Your task to perform on an android device: refresh tabs in the chrome app Image 0: 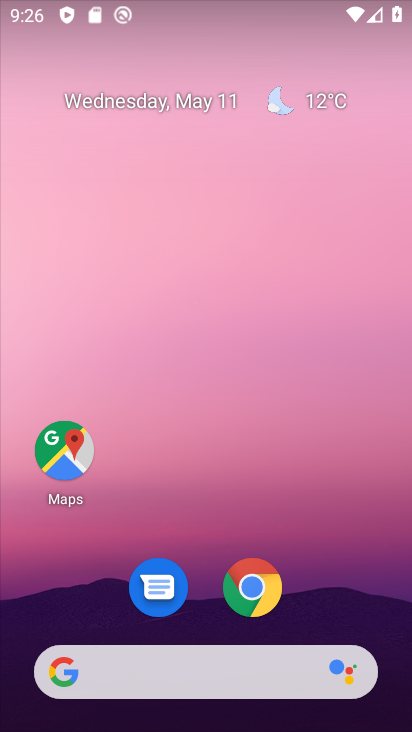
Step 0: click (254, 593)
Your task to perform on an android device: refresh tabs in the chrome app Image 1: 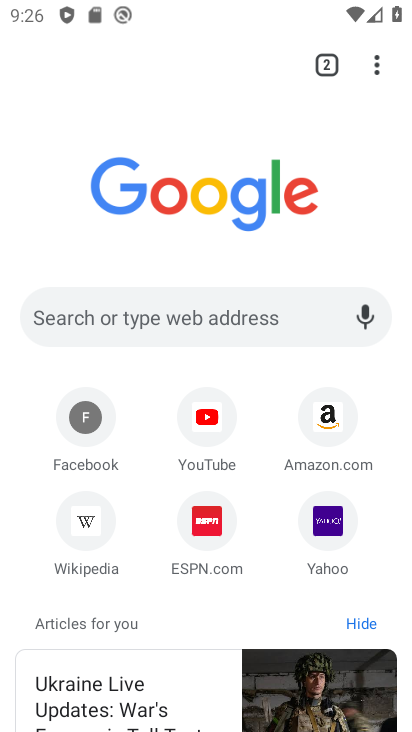
Step 1: click (376, 65)
Your task to perform on an android device: refresh tabs in the chrome app Image 2: 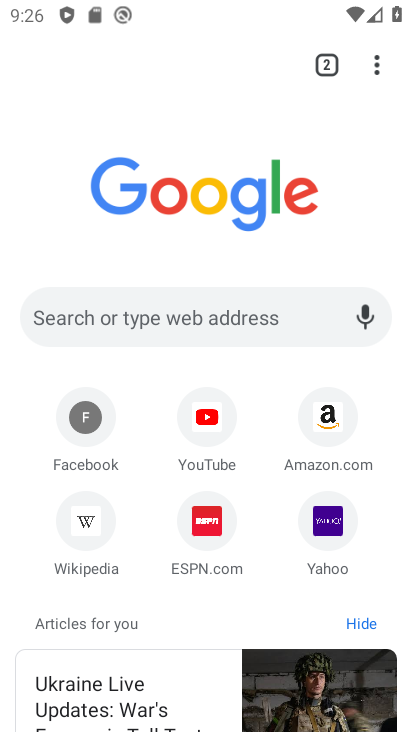
Step 2: click (373, 65)
Your task to perform on an android device: refresh tabs in the chrome app Image 3: 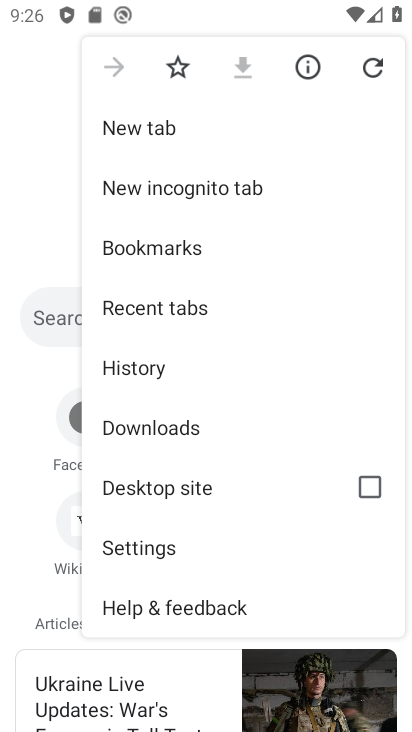
Step 3: click (381, 63)
Your task to perform on an android device: refresh tabs in the chrome app Image 4: 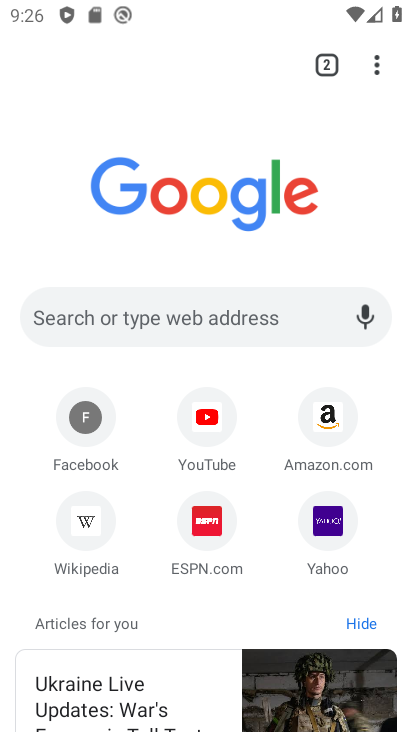
Step 4: task complete